Your task to perform on an android device: stop showing notifications on the lock screen Image 0: 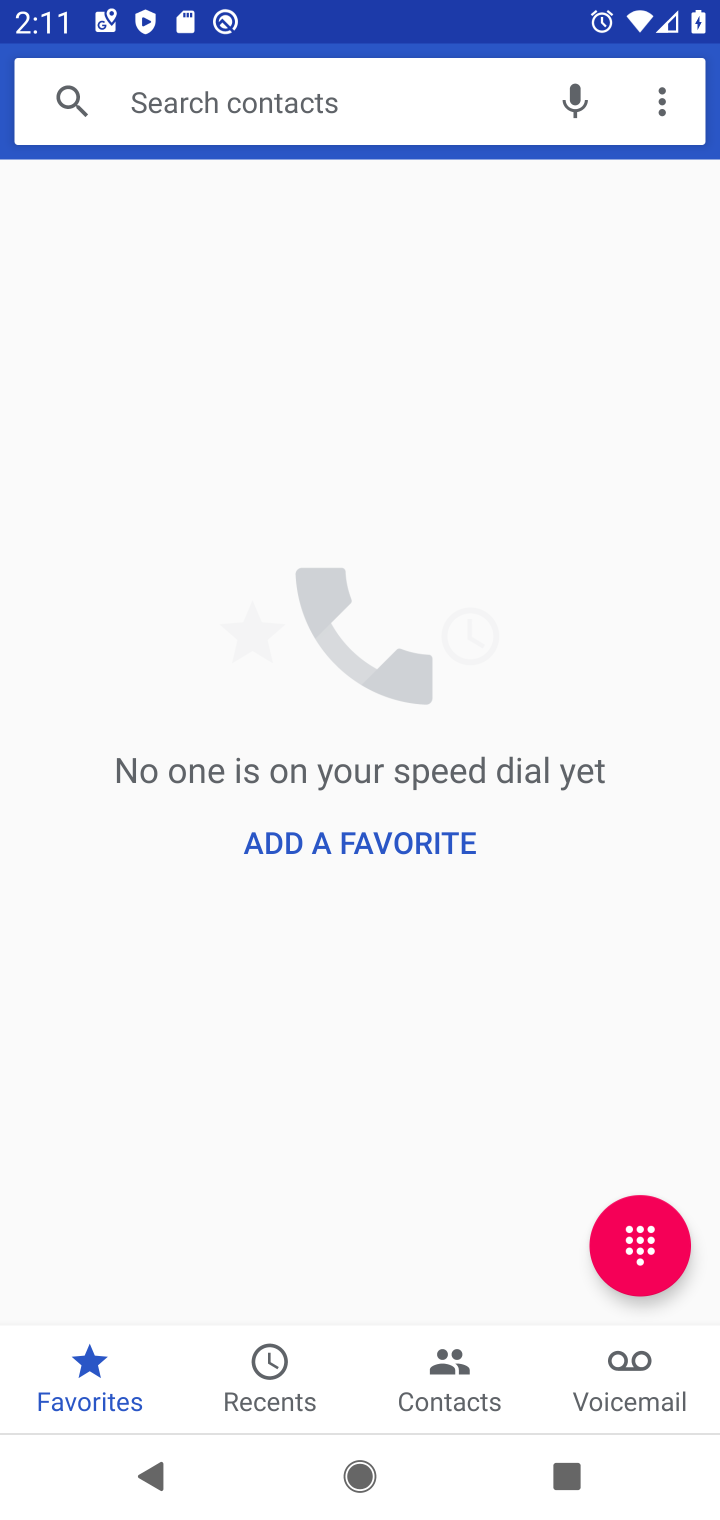
Step 0: press home button
Your task to perform on an android device: stop showing notifications on the lock screen Image 1: 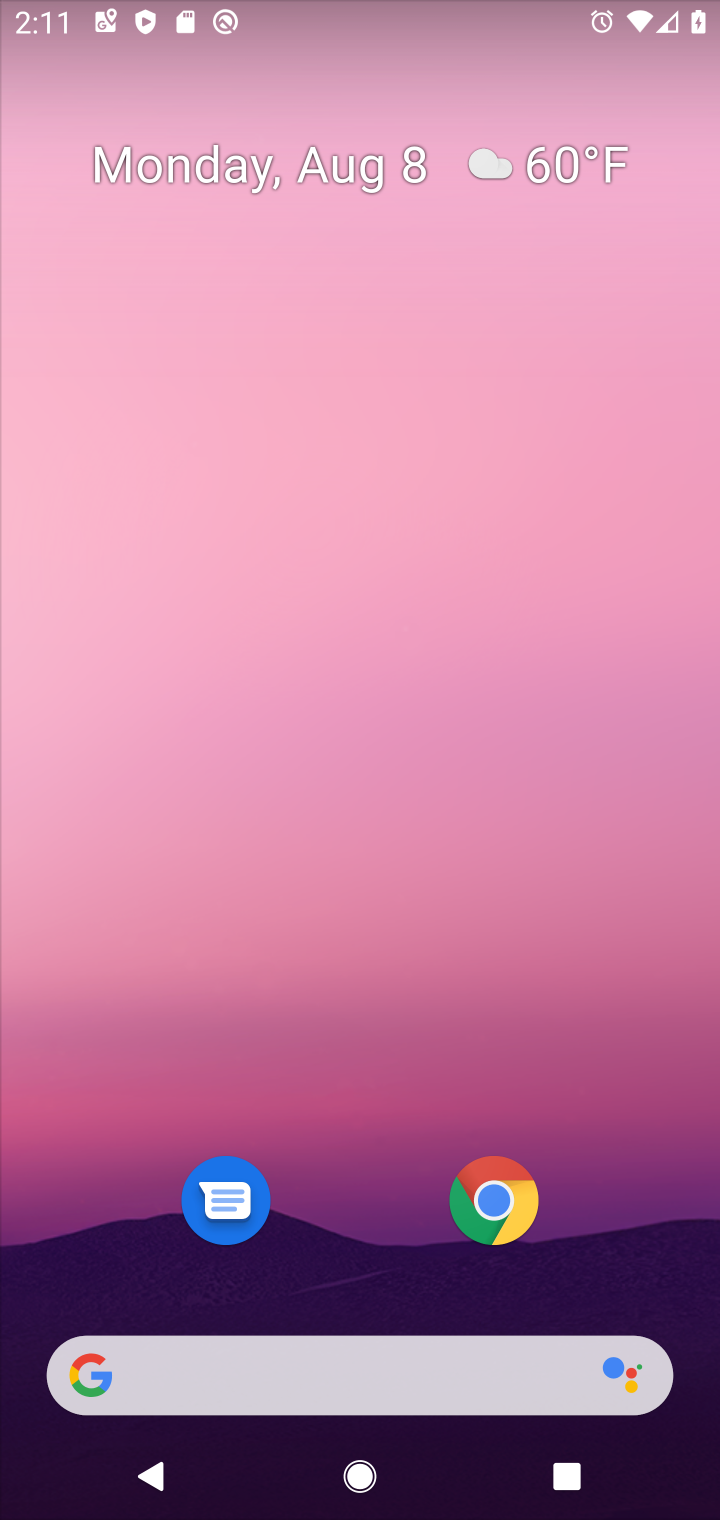
Step 1: drag from (393, 1300) to (482, 277)
Your task to perform on an android device: stop showing notifications on the lock screen Image 2: 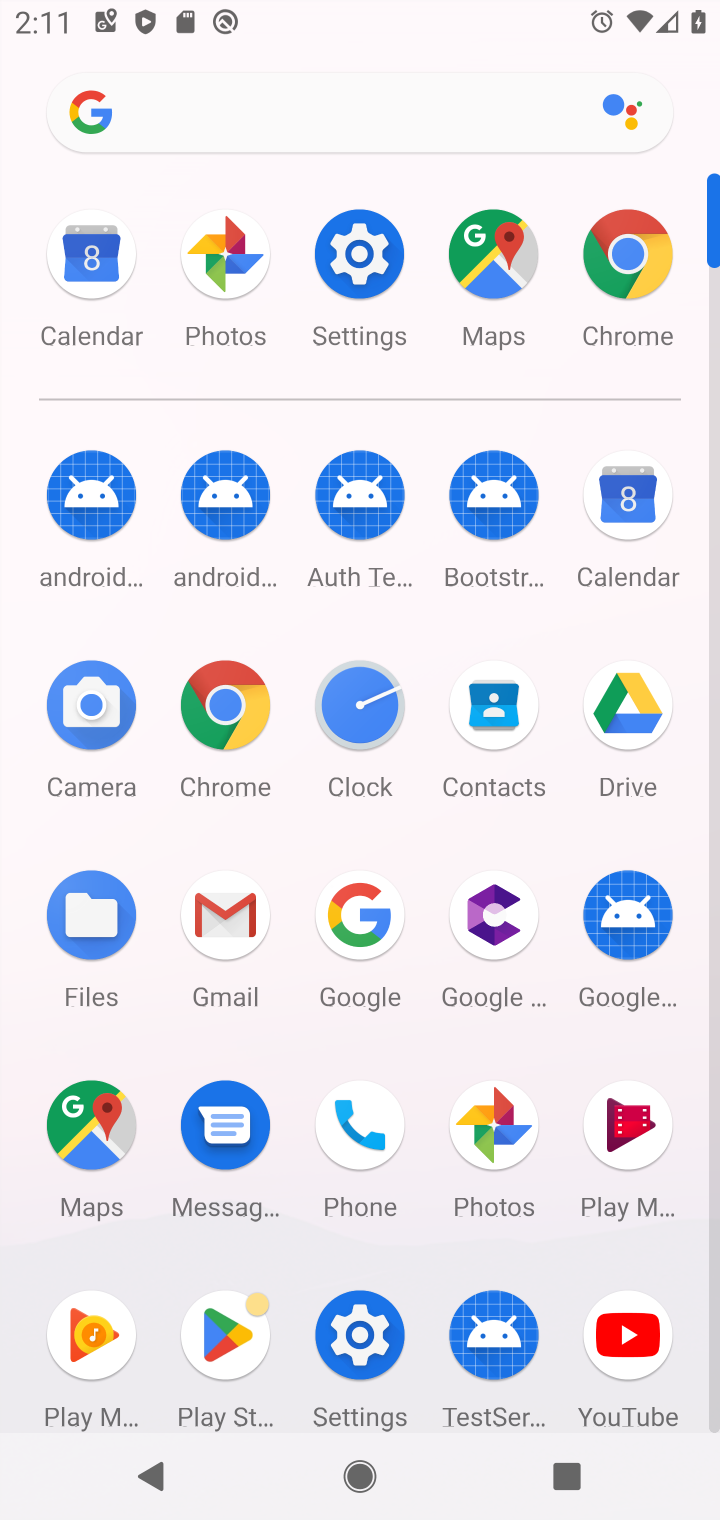
Step 2: click (372, 1325)
Your task to perform on an android device: stop showing notifications on the lock screen Image 3: 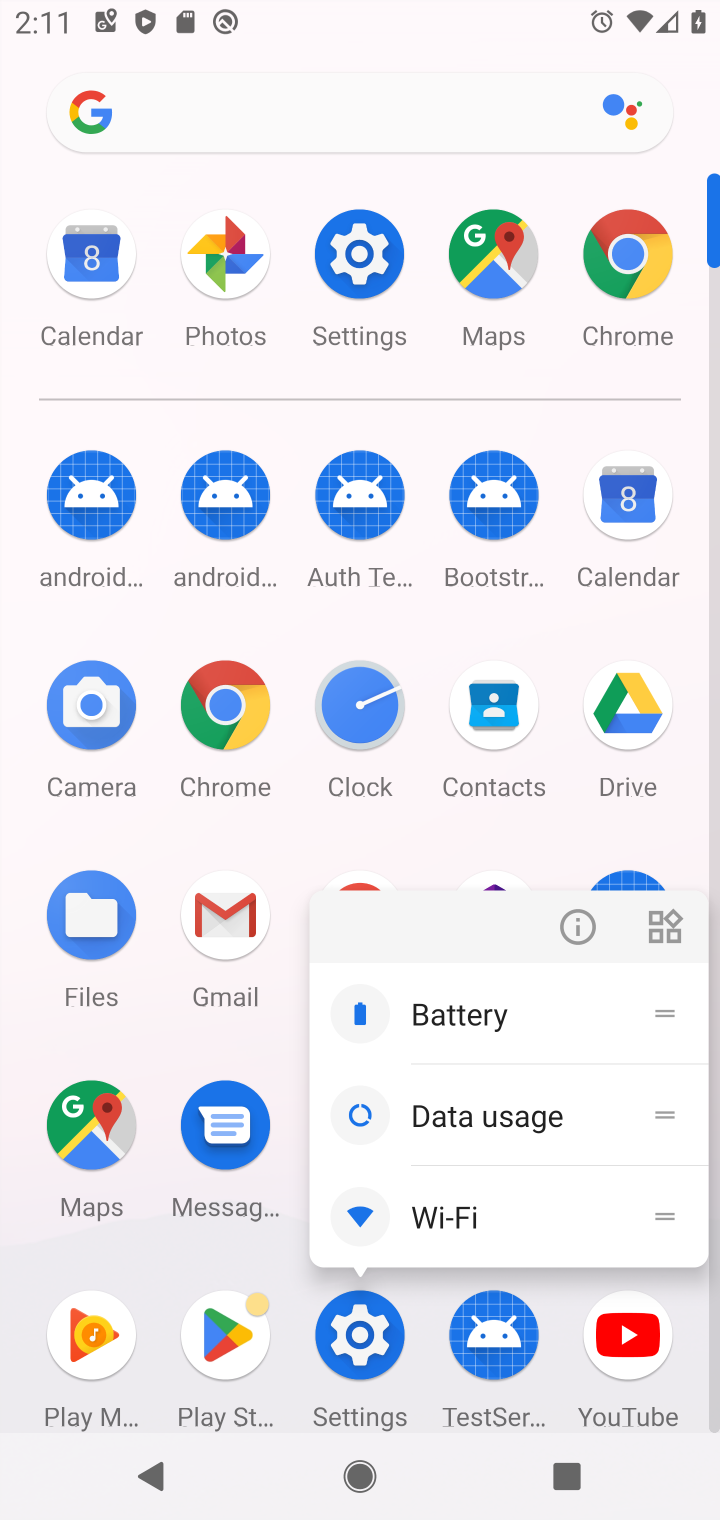
Step 3: click (348, 1315)
Your task to perform on an android device: stop showing notifications on the lock screen Image 4: 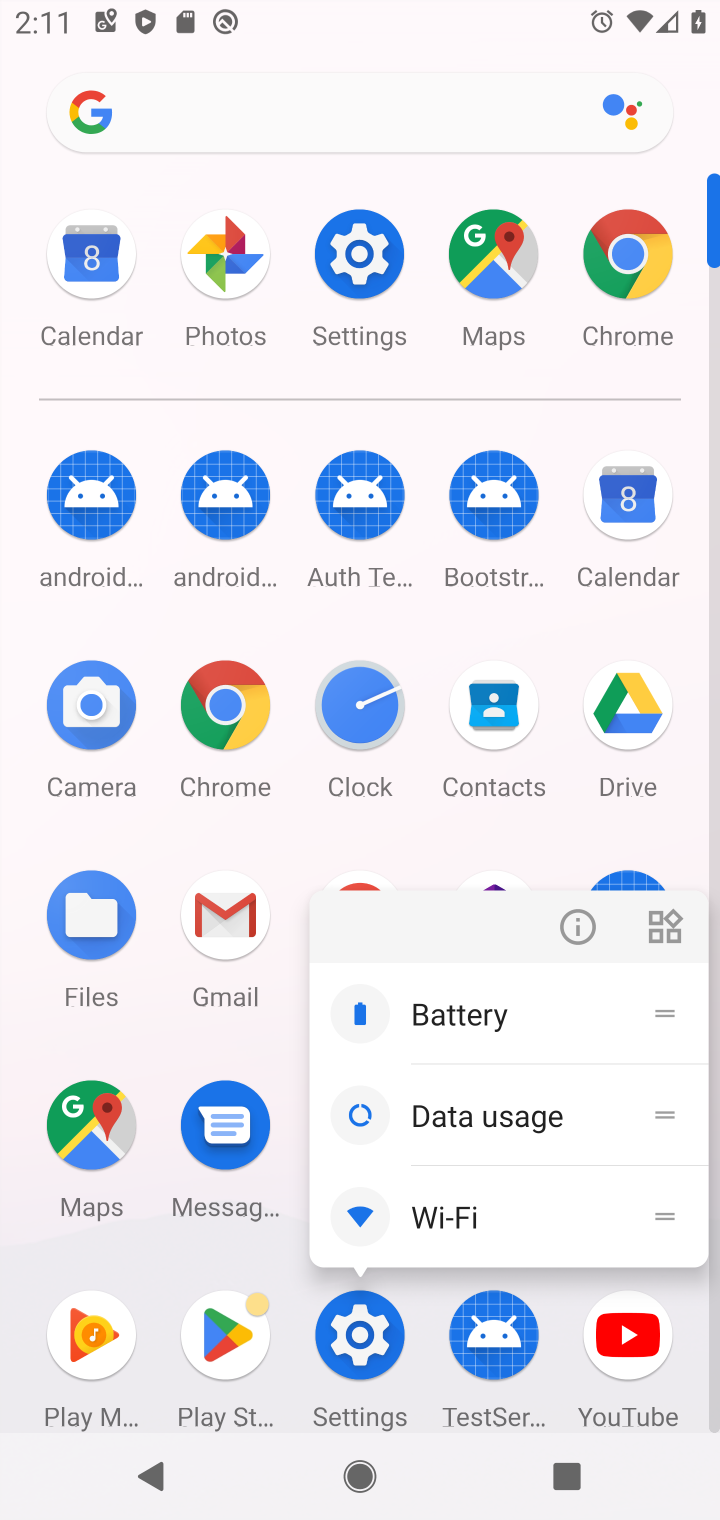
Step 4: click (354, 1322)
Your task to perform on an android device: stop showing notifications on the lock screen Image 5: 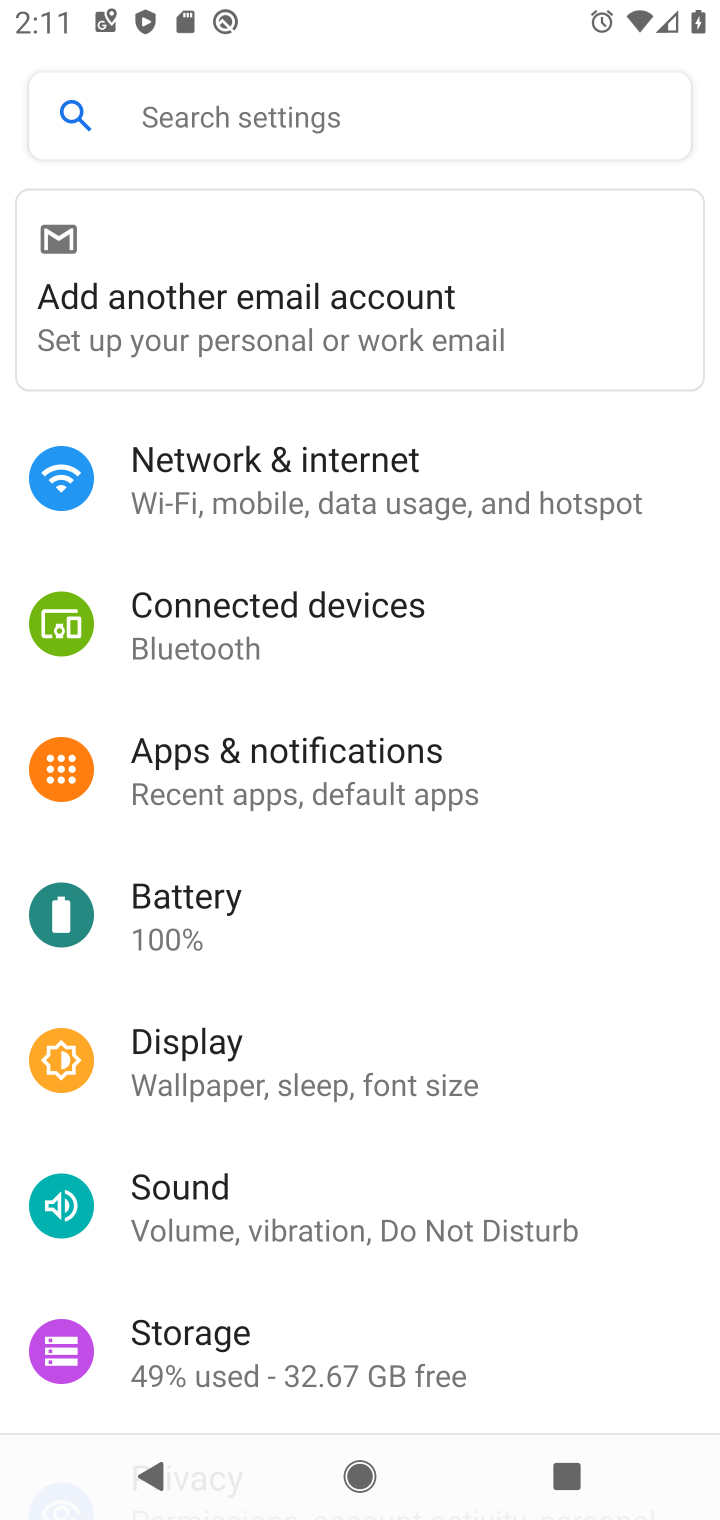
Step 5: click (359, 774)
Your task to perform on an android device: stop showing notifications on the lock screen Image 6: 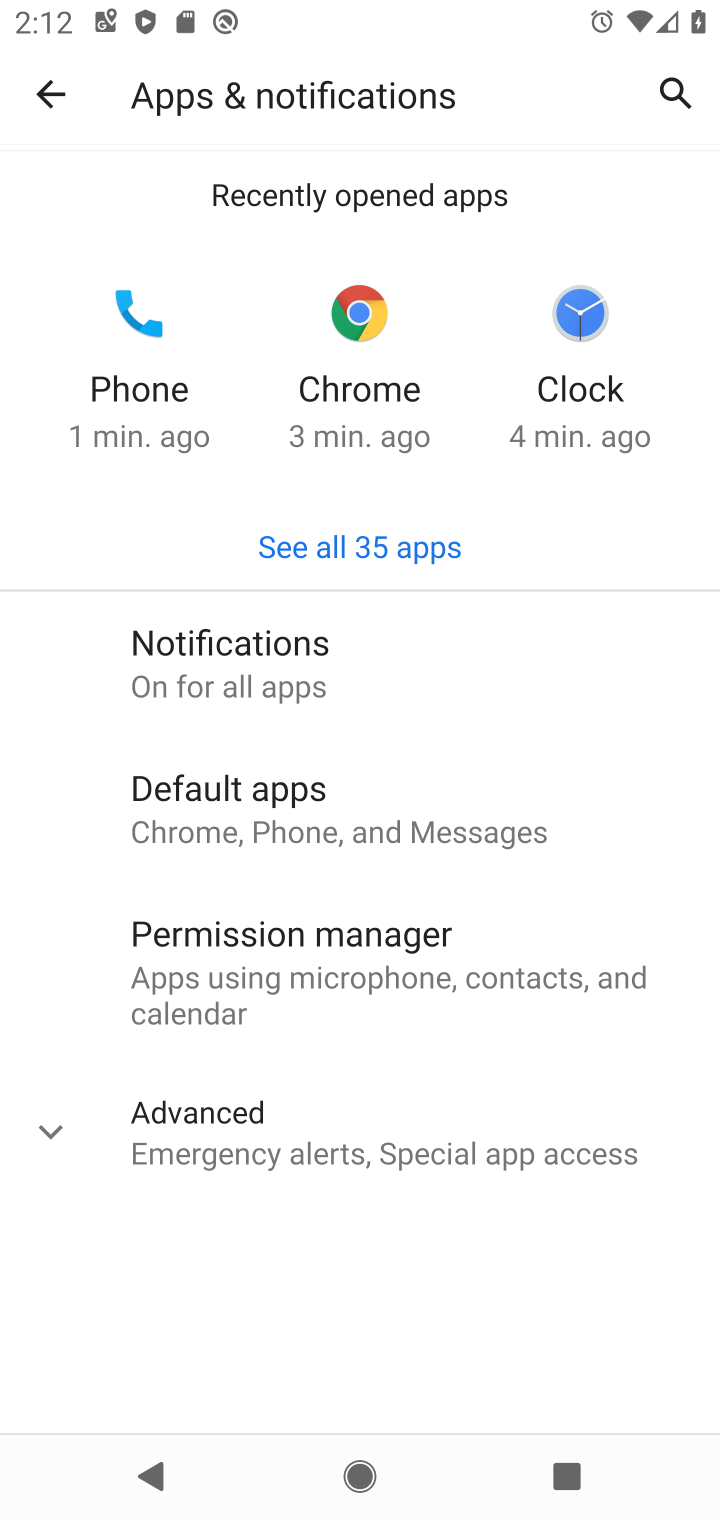
Step 6: click (363, 653)
Your task to perform on an android device: stop showing notifications on the lock screen Image 7: 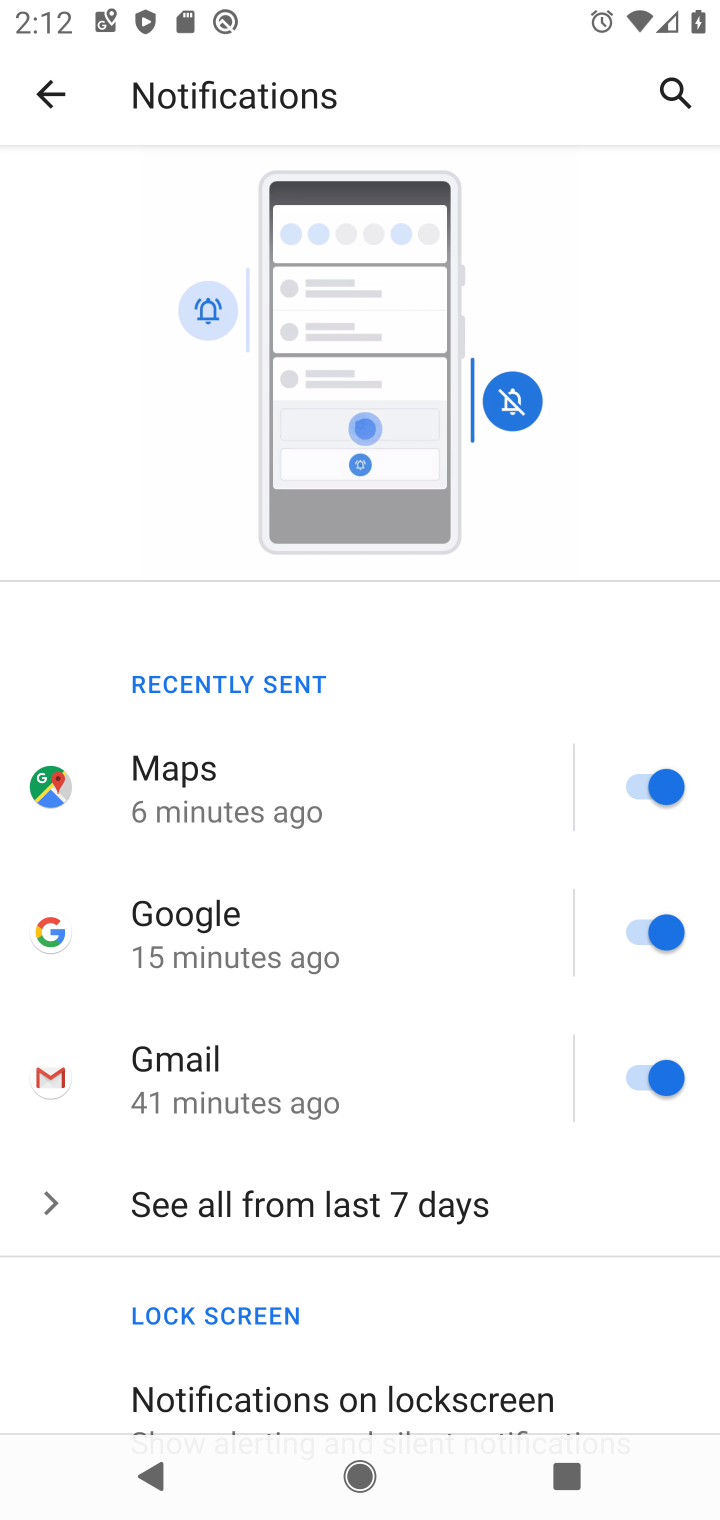
Step 7: click (521, 1375)
Your task to perform on an android device: stop showing notifications on the lock screen Image 8: 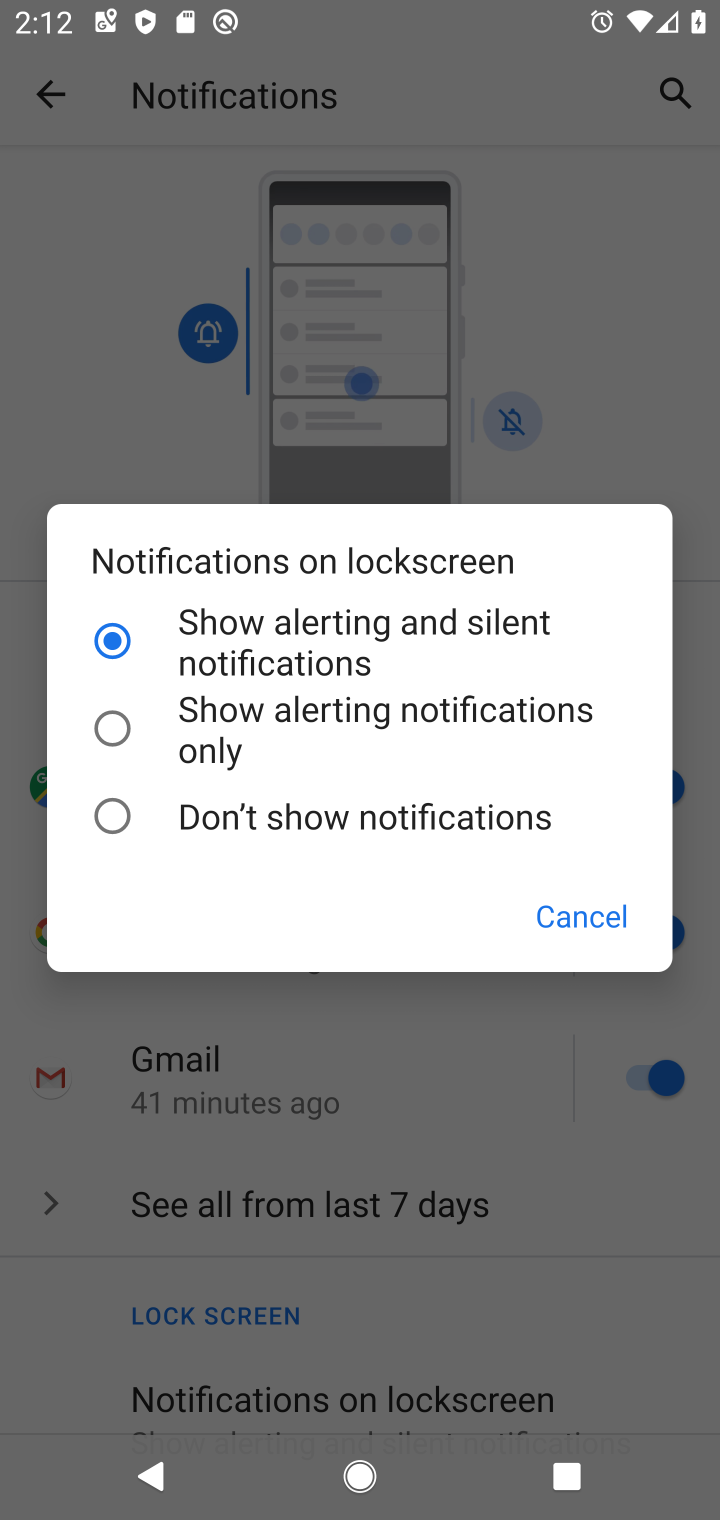
Step 8: click (107, 805)
Your task to perform on an android device: stop showing notifications on the lock screen Image 9: 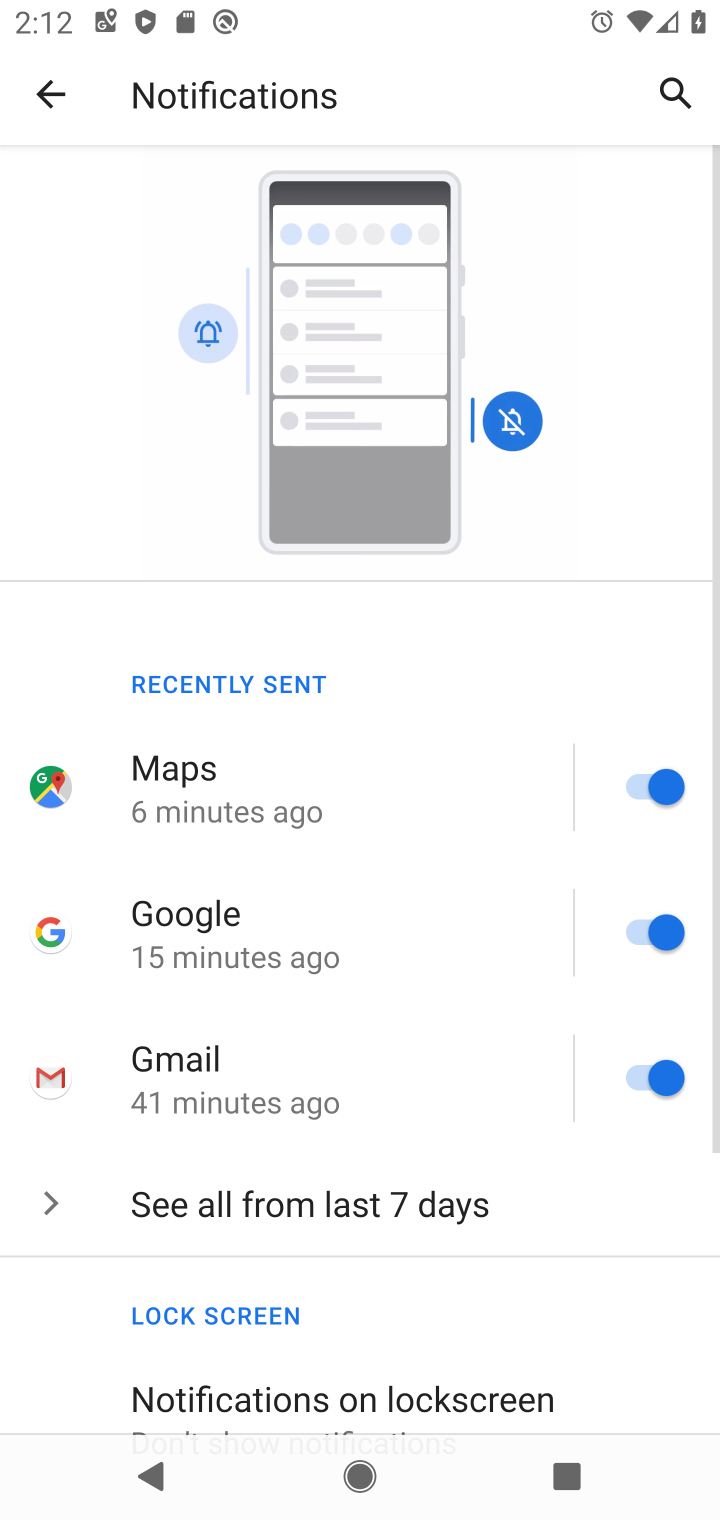
Step 9: task complete